Your task to perform on an android device: When is my next appointment? Image 0: 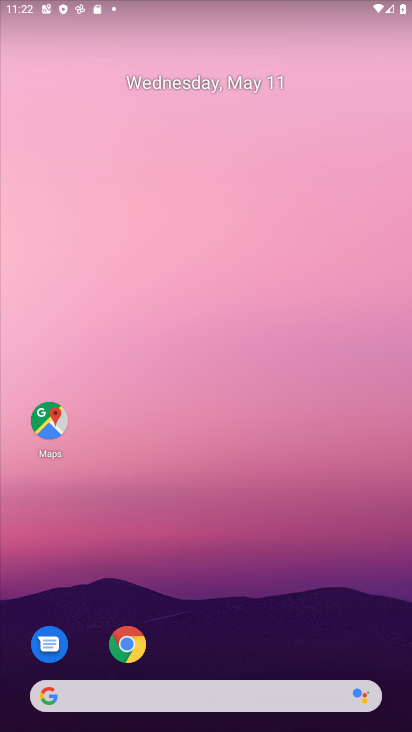
Step 0: drag from (271, 665) to (265, 196)
Your task to perform on an android device: When is my next appointment? Image 1: 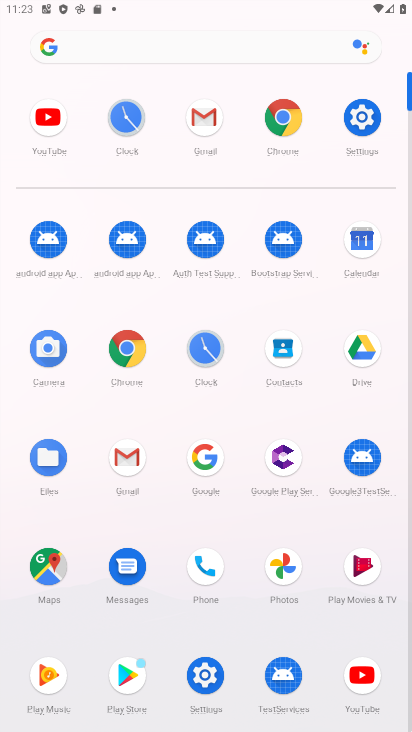
Step 1: click (353, 263)
Your task to perform on an android device: When is my next appointment? Image 2: 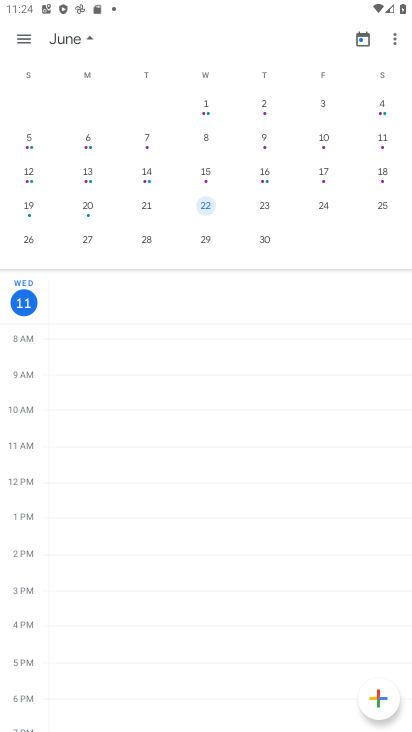
Step 2: click (12, 37)
Your task to perform on an android device: When is my next appointment? Image 3: 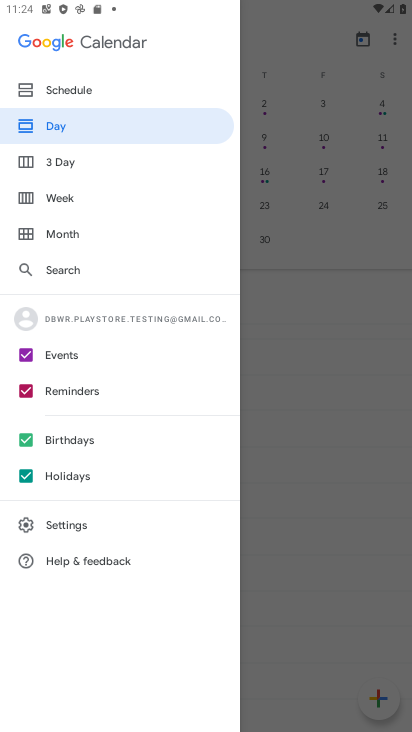
Step 3: click (101, 193)
Your task to perform on an android device: When is my next appointment? Image 4: 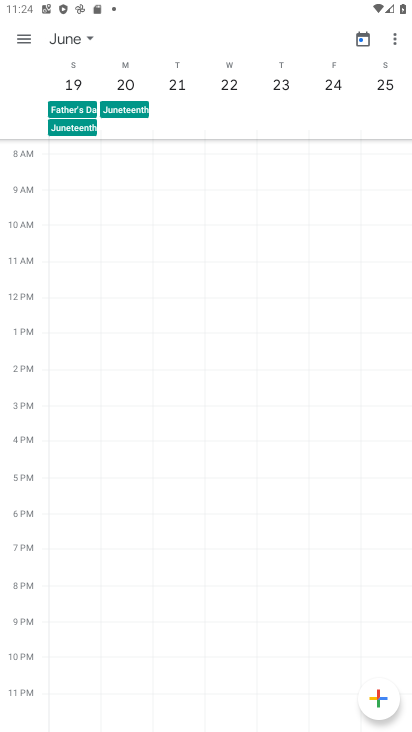
Step 4: task complete